Your task to perform on an android device: Open settings Image 0: 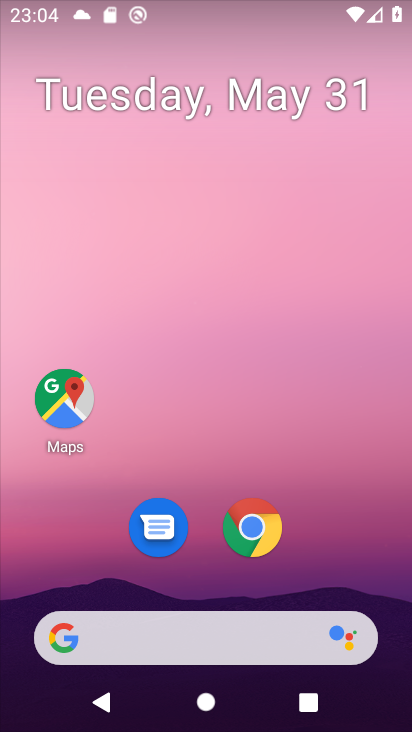
Step 0: drag from (323, 531) to (211, 22)
Your task to perform on an android device: Open settings Image 1: 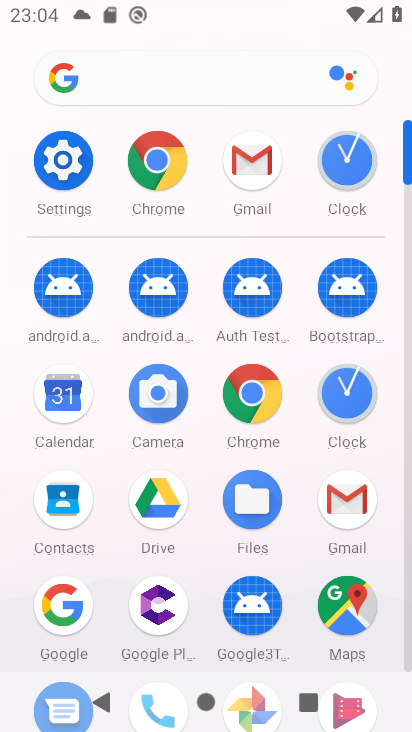
Step 1: click (68, 164)
Your task to perform on an android device: Open settings Image 2: 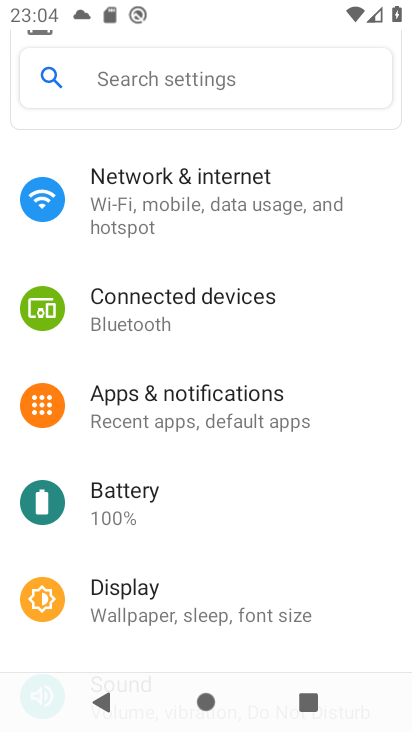
Step 2: task complete